Your task to perform on an android device: Turn on the flashlight Image 0: 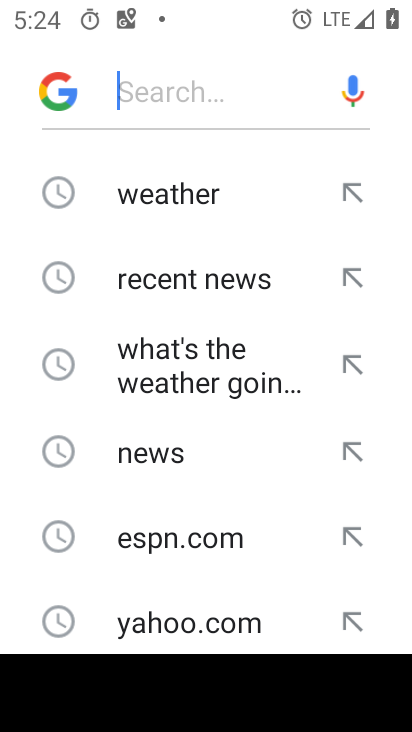
Step 0: press home button
Your task to perform on an android device: Turn on the flashlight Image 1: 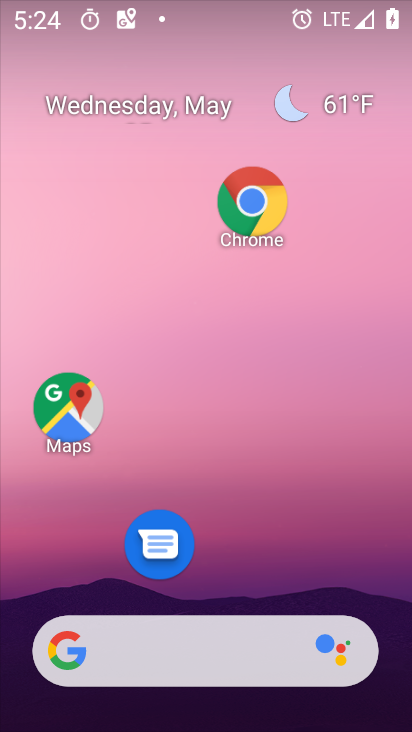
Step 1: drag from (206, 8) to (174, 450)
Your task to perform on an android device: Turn on the flashlight Image 2: 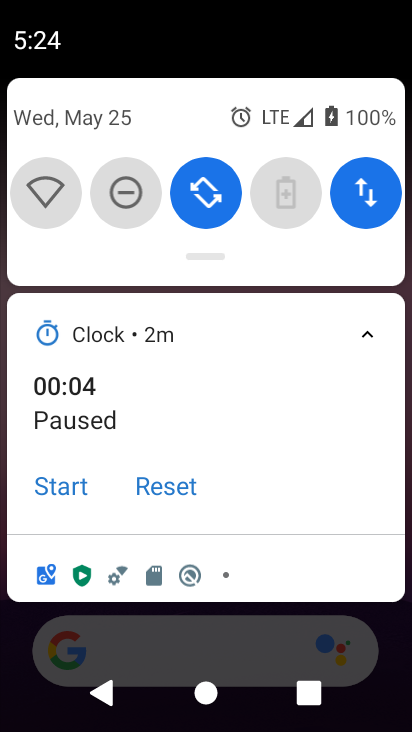
Step 2: drag from (243, 191) to (262, 505)
Your task to perform on an android device: Turn on the flashlight Image 3: 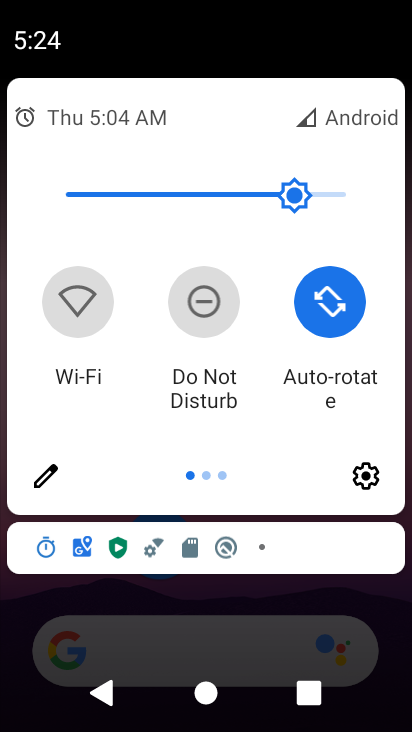
Step 3: drag from (366, 350) to (6, 401)
Your task to perform on an android device: Turn on the flashlight Image 4: 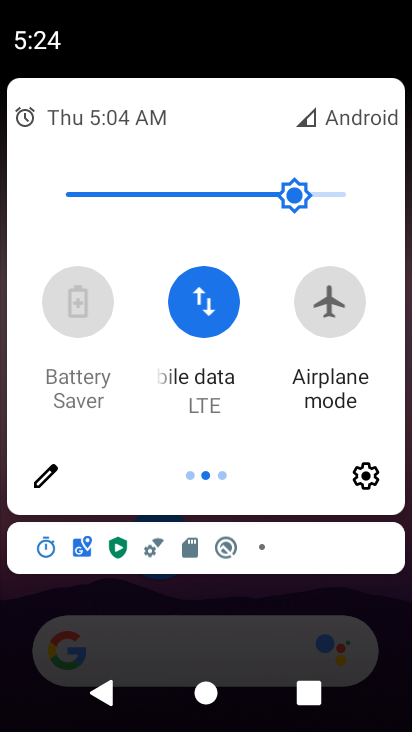
Step 4: drag from (361, 387) to (33, 406)
Your task to perform on an android device: Turn on the flashlight Image 5: 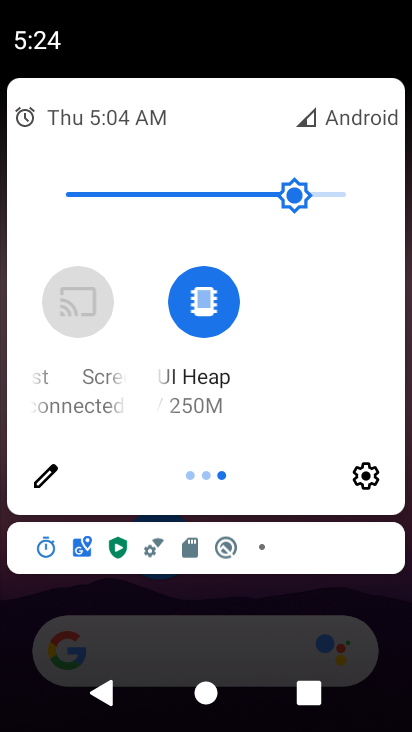
Step 5: click (39, 476)
Your task to perform on an android device: Turn on the flashlight Image 6: 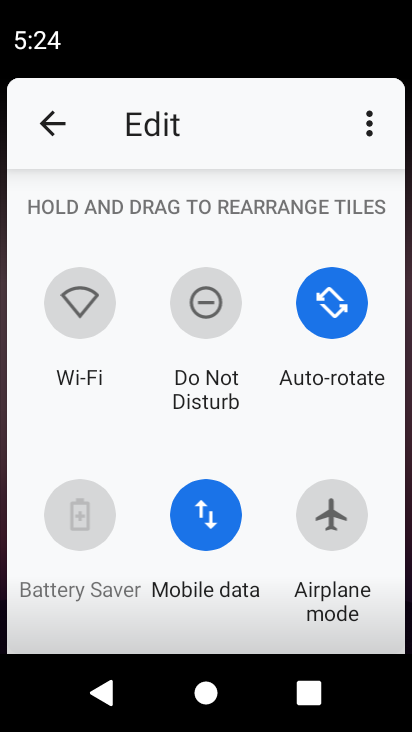
Step 6: task complete